Your task to perform on an android device: Open settings Image 0: 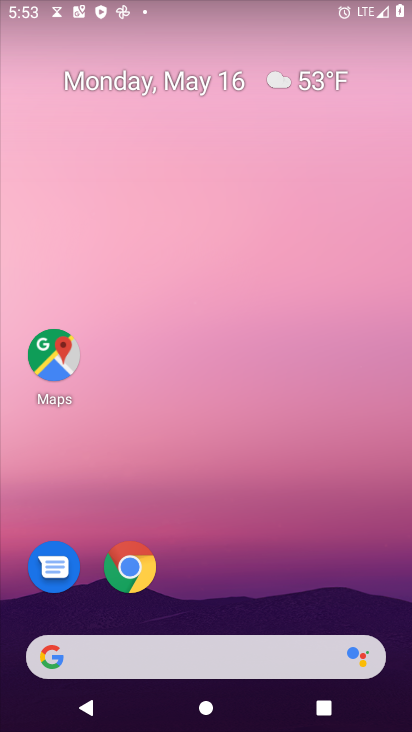
Step 0: drag from (327, 619) to (361, 39)
Your task to perform on an android device: Open settings Image 1: 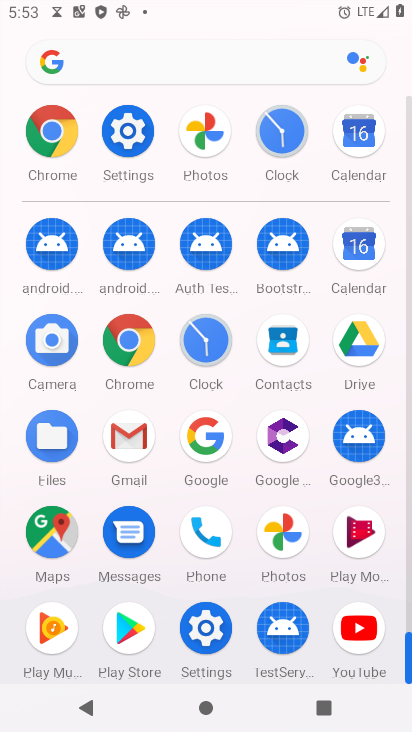
Step 1: click (133, 142)
Your task to perform on an android device: Open settings Image 2: 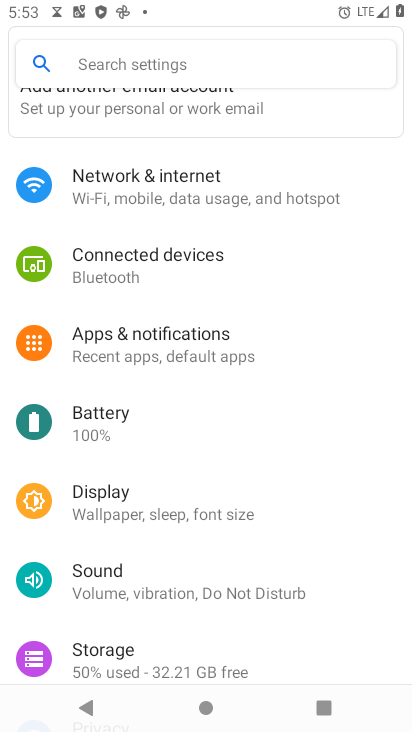
Step 2: task complete